Your task to perform on an android device: allow notifications from all sites in the chrome app Image 0: 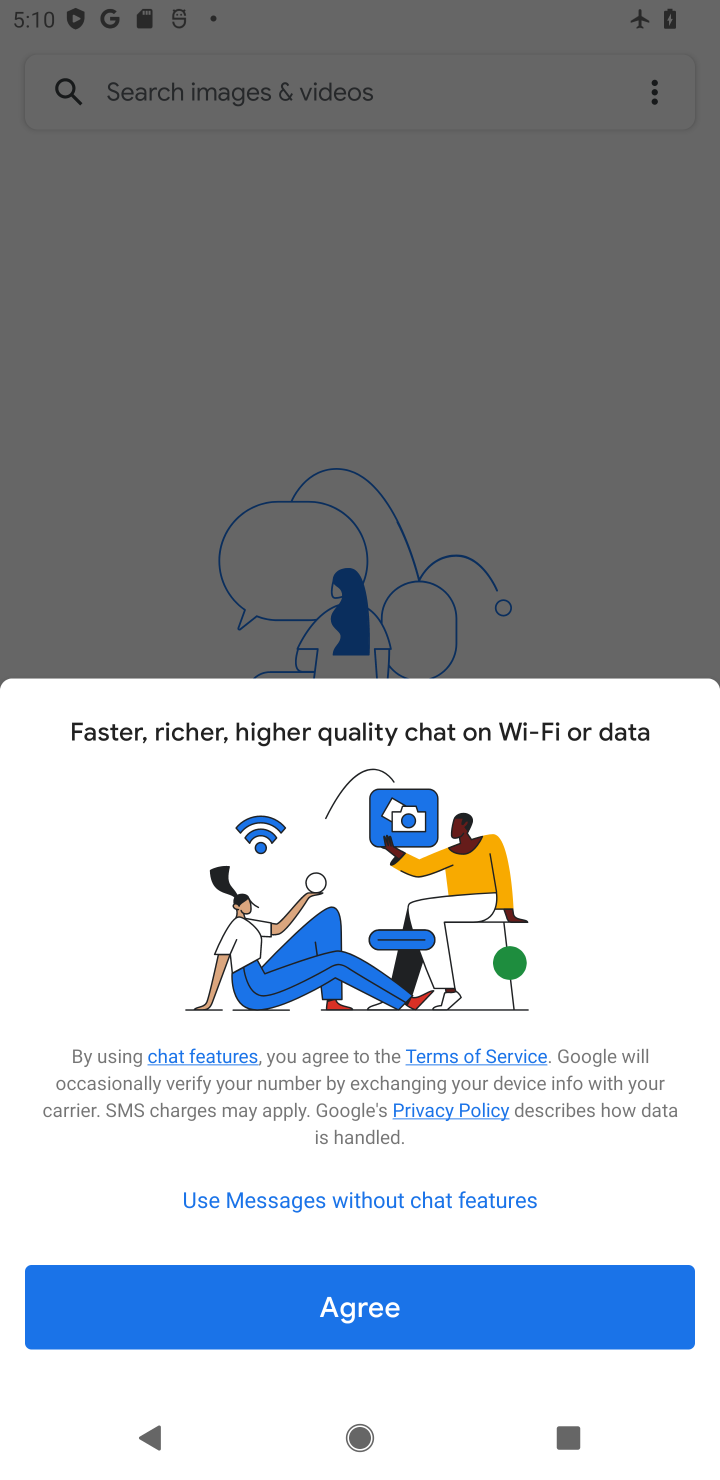
Step 0: press back button
Your task to perform on an android device: allow notifications from all sites in the chrome app Image 1: 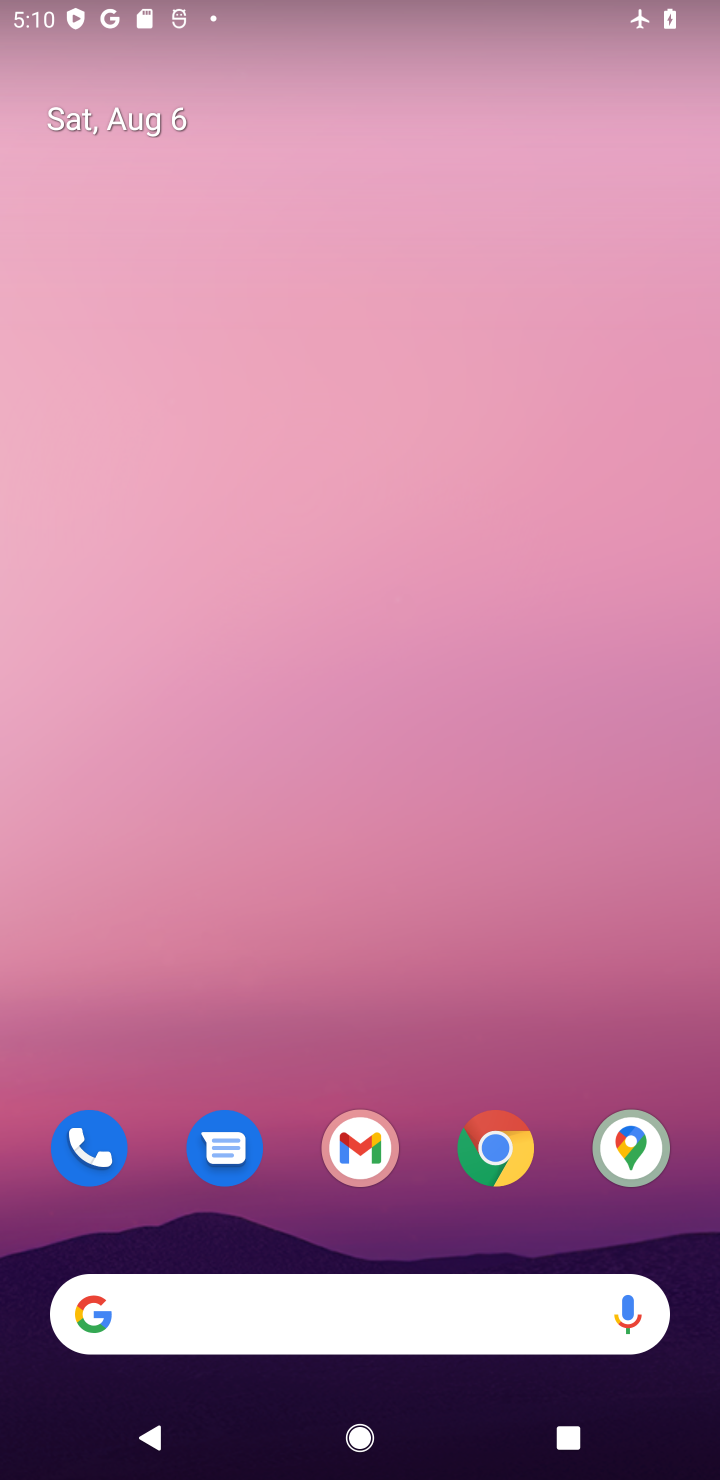
Step 1: drag from (352, 1260) to (264, 3)
Your task to perform on an android device: allow notifications from all sites in the chrome app Image 2: 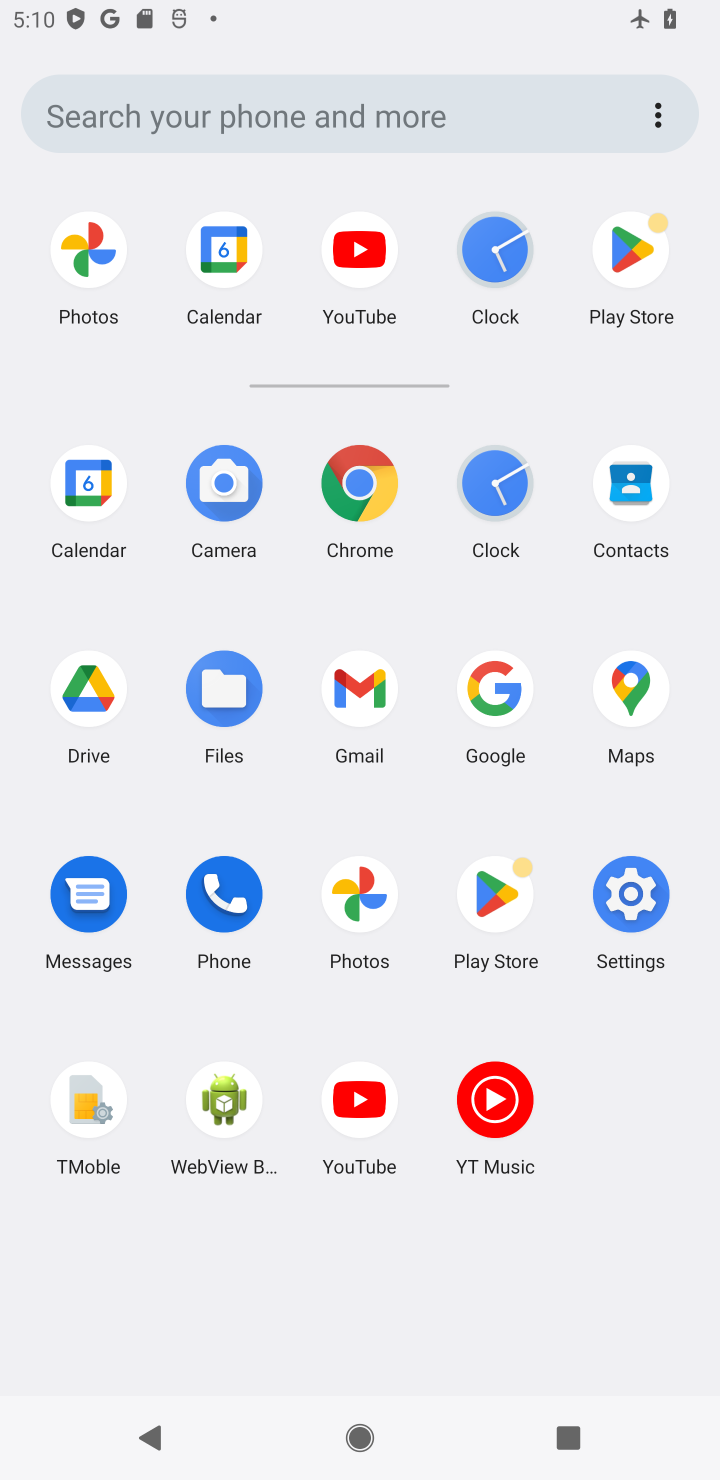
Step 2: click (344, 504)
Your task to perform on an android device: allow notifications from all sites in the chrome app Image 3: 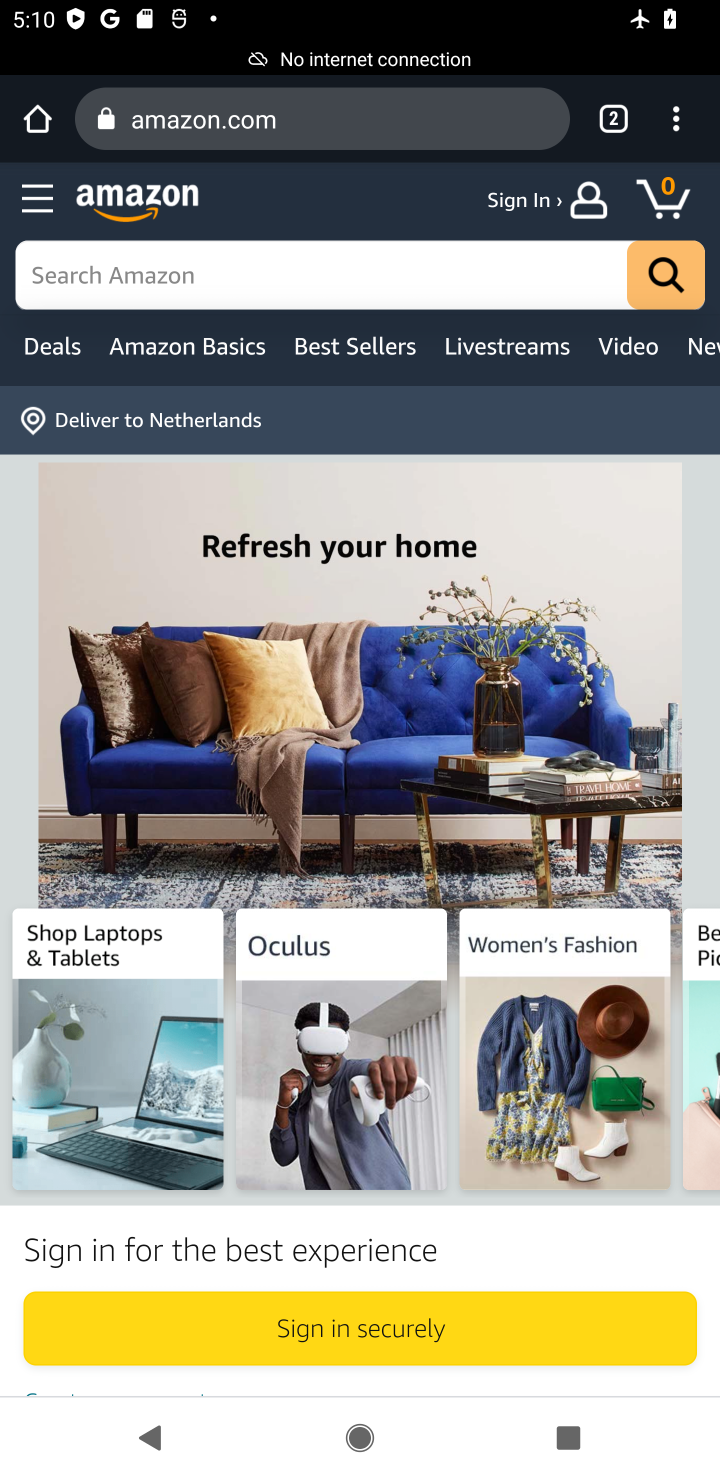
Step 3: drag from (664, 121) to (403, 1080)
Your task to perform on an android device: allow notifications from all sites in the chrome app Image 4: 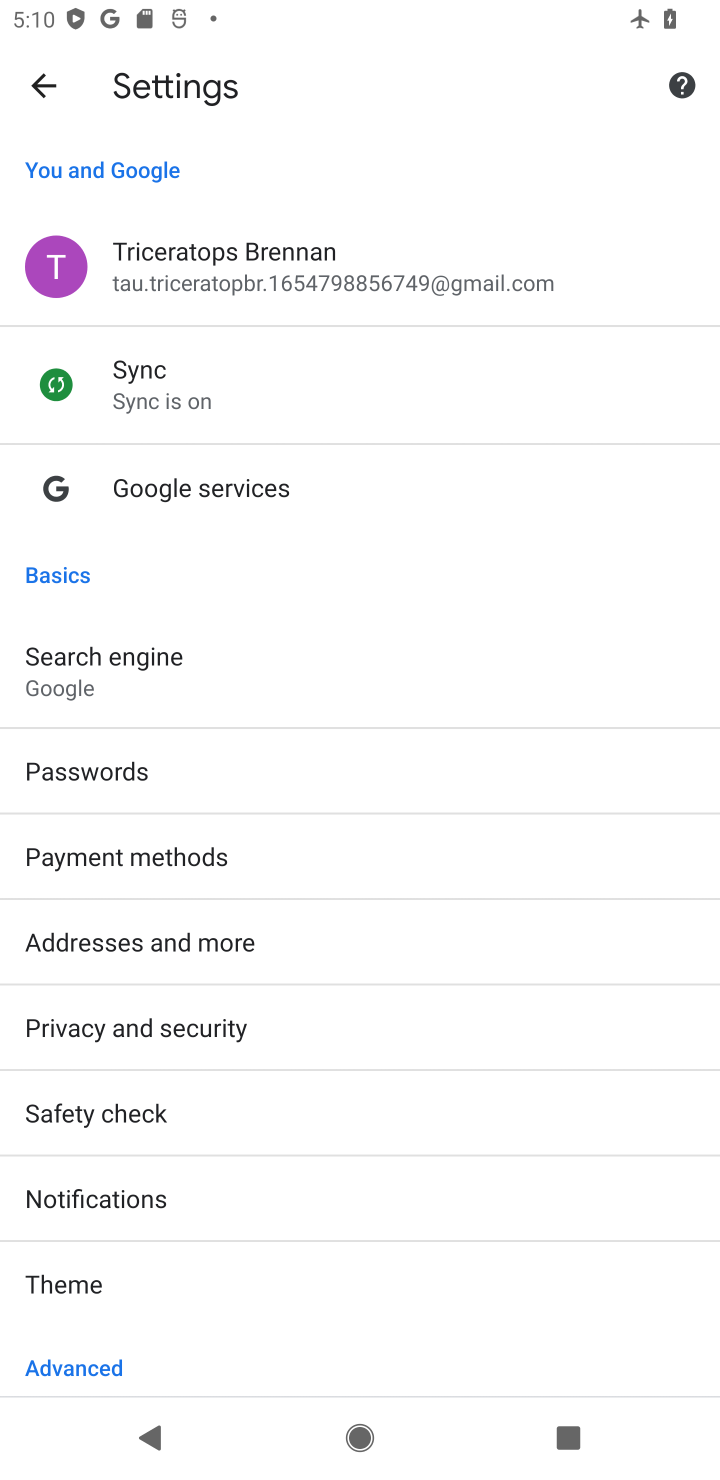
Step 4: drag from (397, 1084) to (389, 155)
Your task to perform on an android device: allow notifications from all sites in the chrome app Image 5: 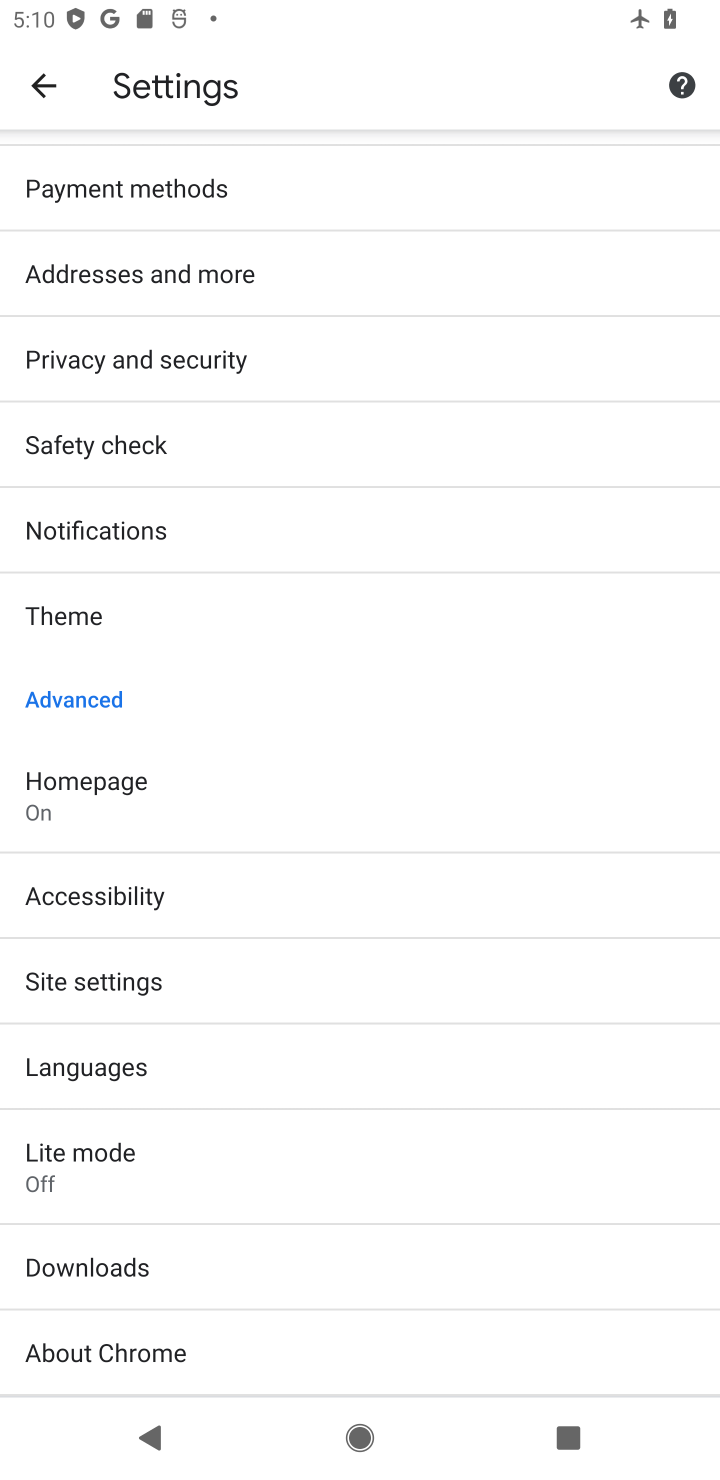
Step 5: click (104, 978)
Your task to perform on an android device: allow notifications from all sites in the chrome app Image 6: 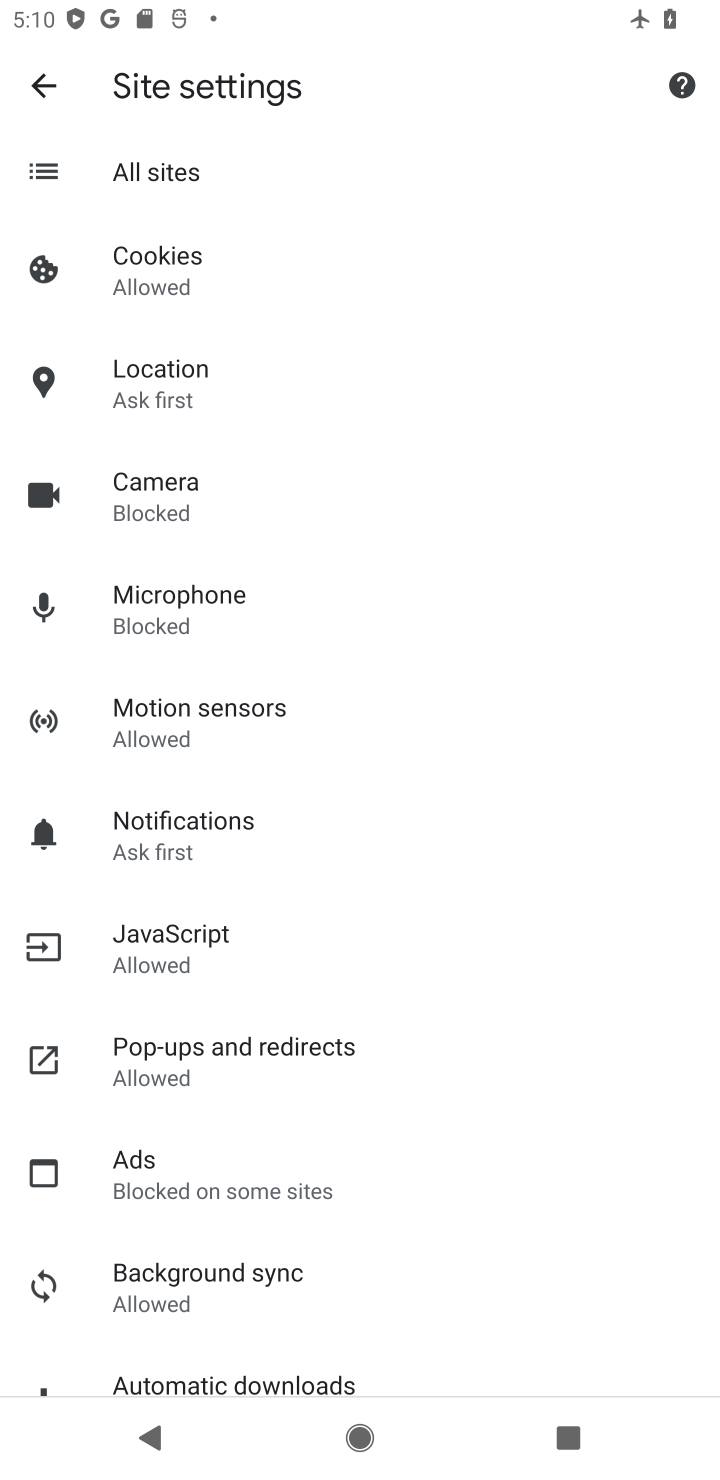
Step 6: click (262, 799)
Your task to perform on an android device: allow notifications from all sites in the chrome app Image 7: 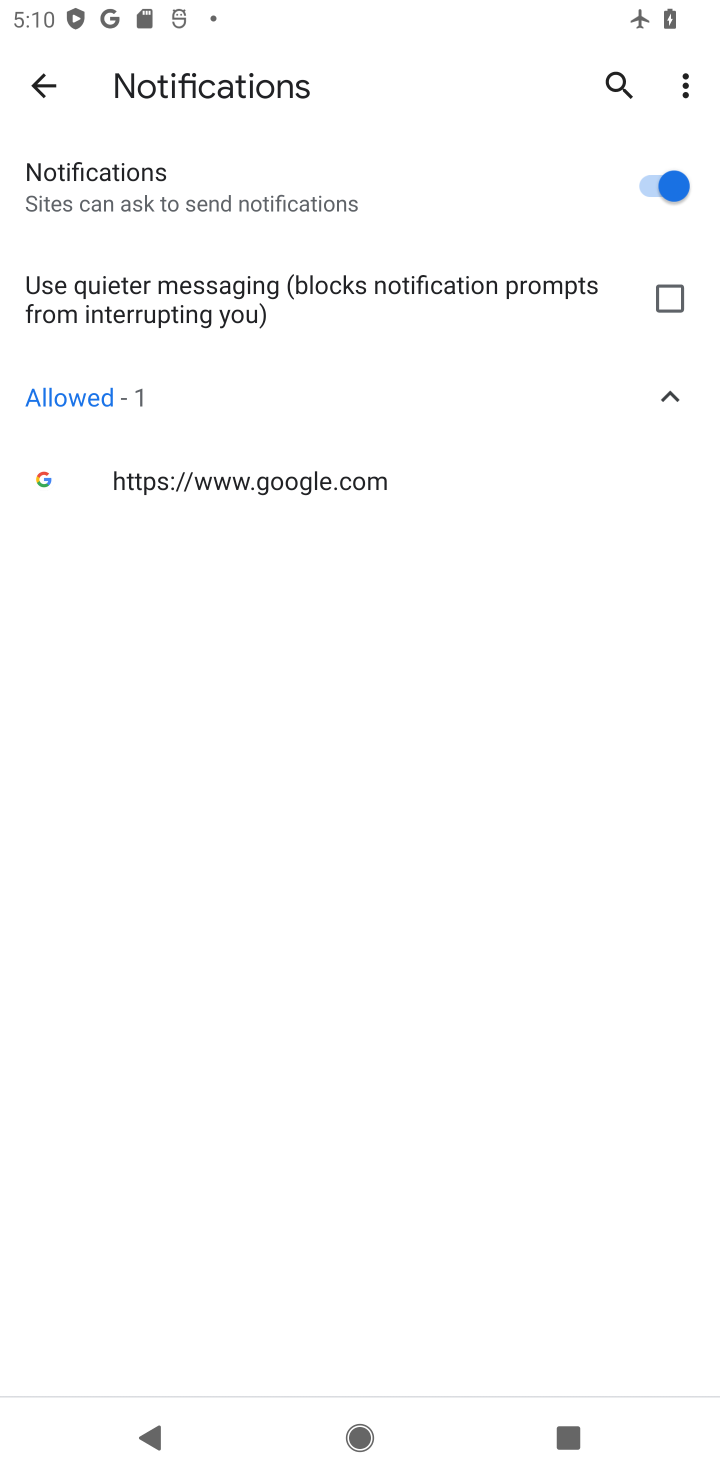
Step 7: task complete